Your task to perform on an android device: Open settings on Google Maps Image 0: 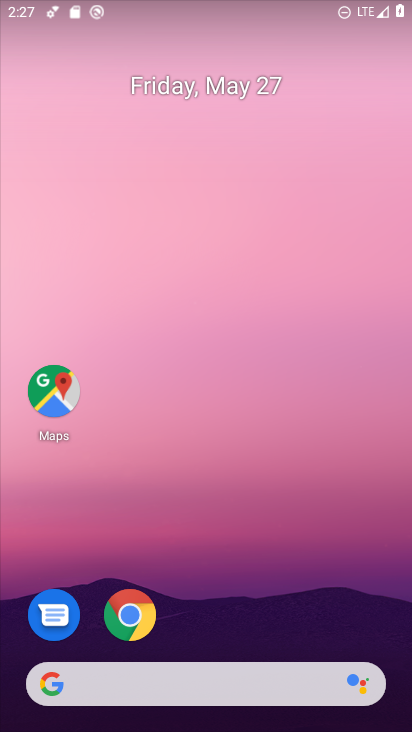
Step 0: drag from (233, 588) to (248, 103)
Your task to perform on an android device: Open settings on Google Maps Image 1: 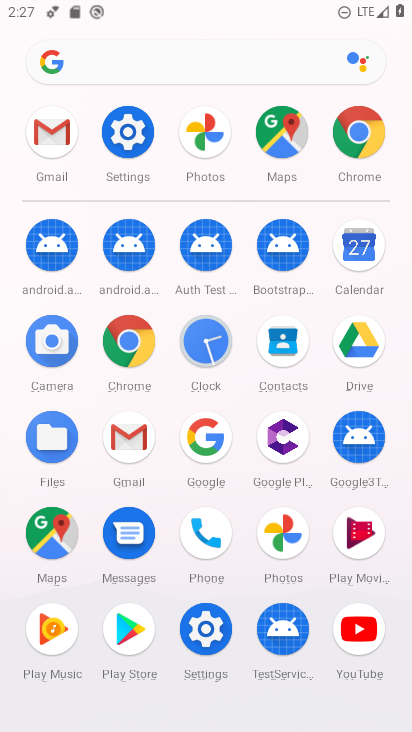
Step 1: click (71, 532)
Your task to perform on an android device: Open settings on Google Maps Image 2: 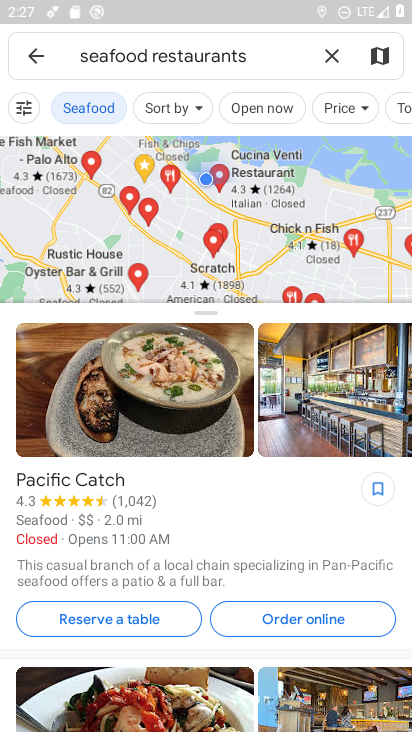
Step 2: task complete